Your task to perform on an android device: Show me popular videos on Youtube Image 0: 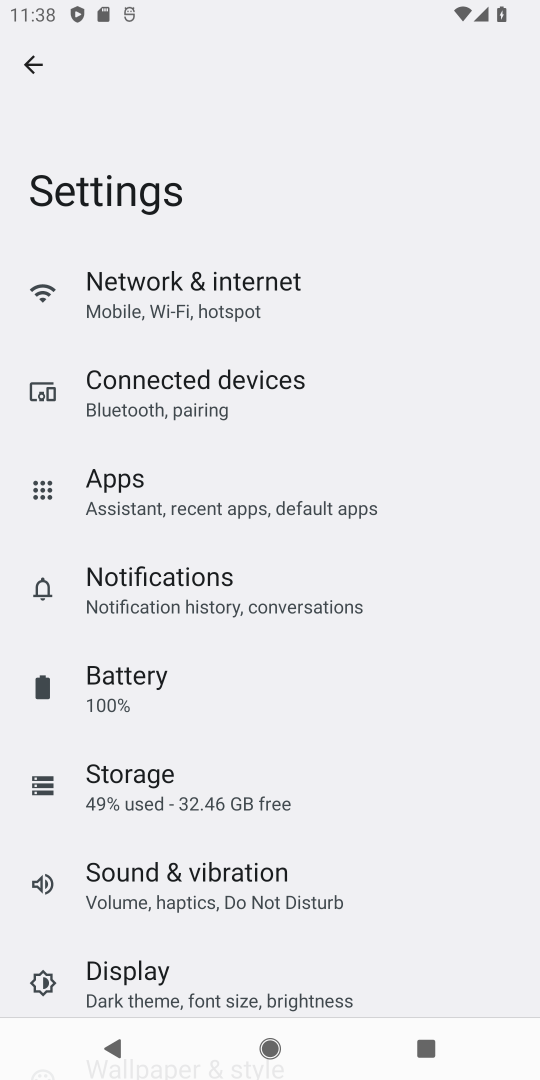
Step 0: press home button
Your task to perform on an android device: Show me popular videos on Youtube Image 1: 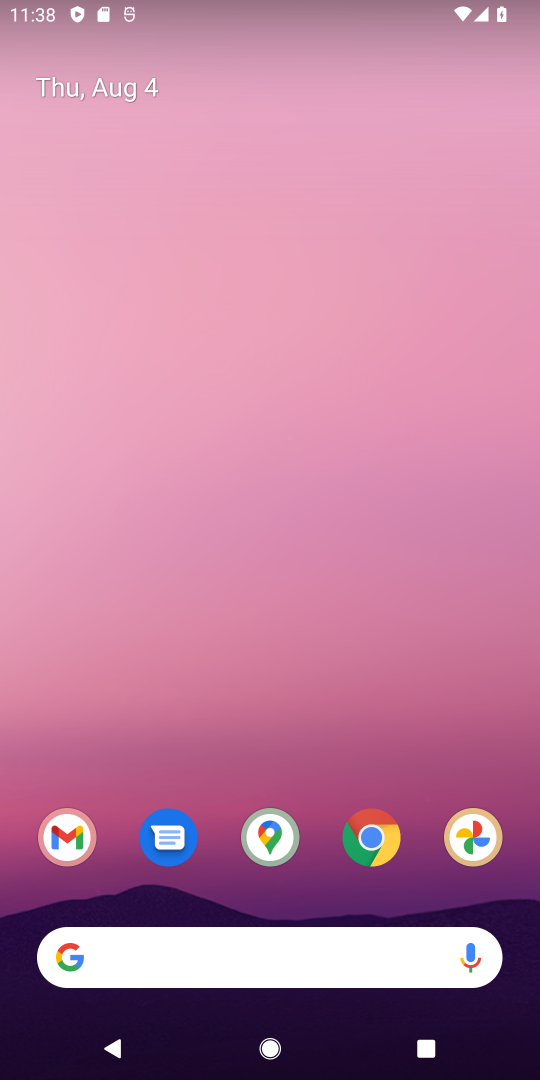
Step 1: drag from (267, 896) to (263, 263)
Your task to perform on an android device: Show me popular videos on Youtube Image 2: 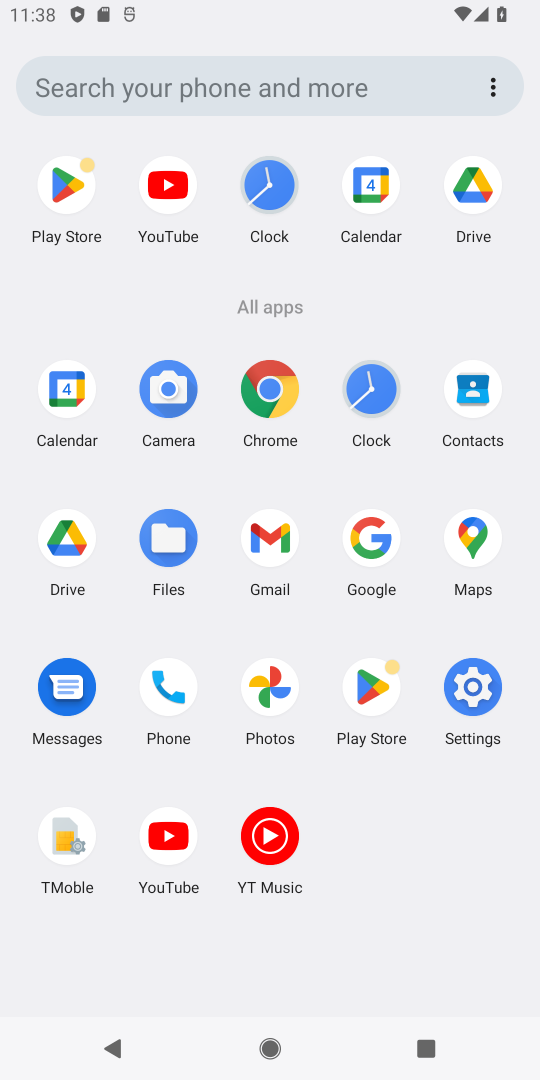
Step 2: click (162, 182)
Your task to perform on an android device: Show me popular videos on Youtube Image 3: 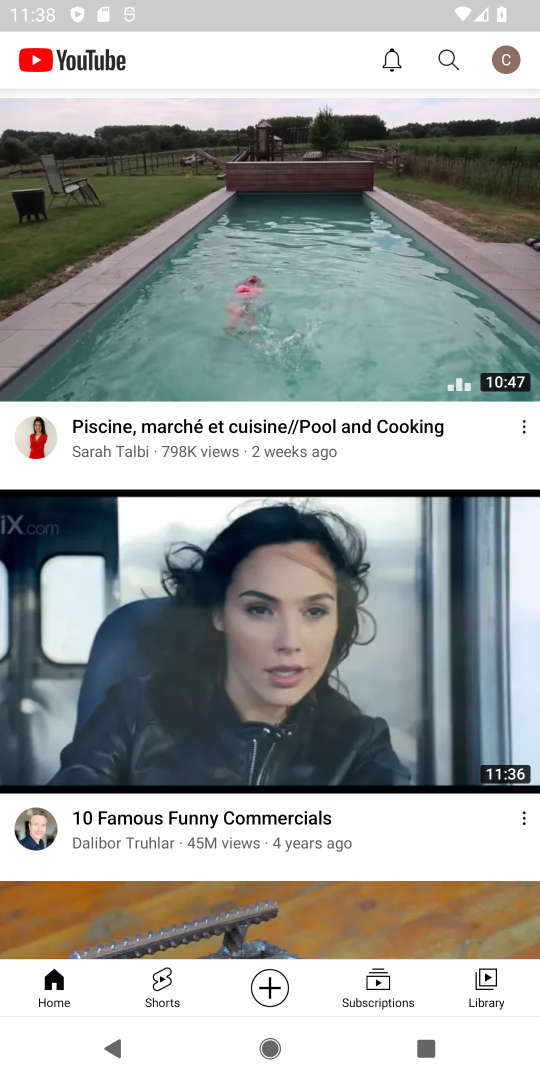
Step 3: drag from (229, 641) to (269, 829)
Your task to perform on an android device: Show me popular videos on Youtube Image 4: 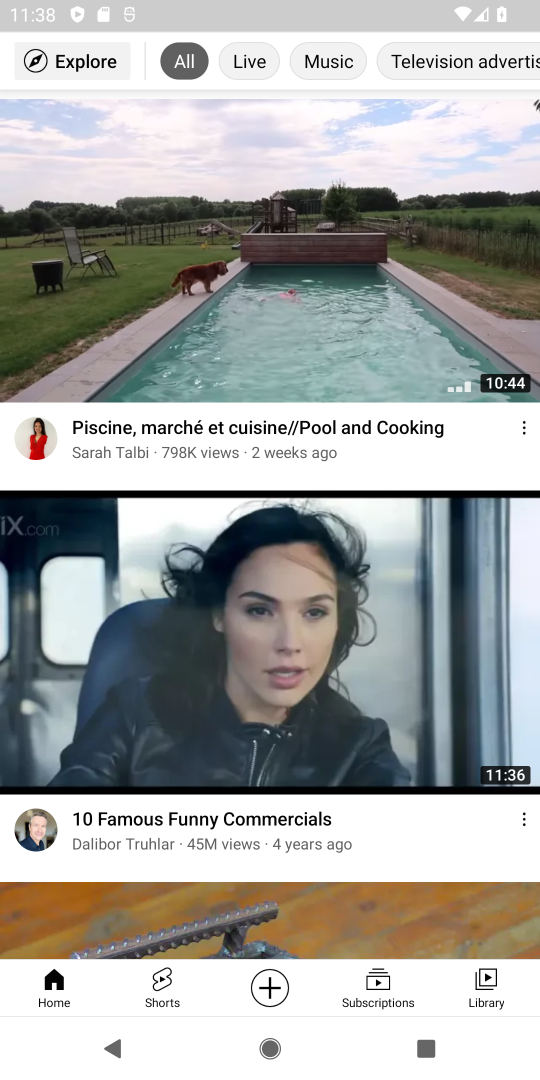
Step 4: click (72, 68)
Your task to perform on an android device: Show me popular videos on Youtube Image 5: 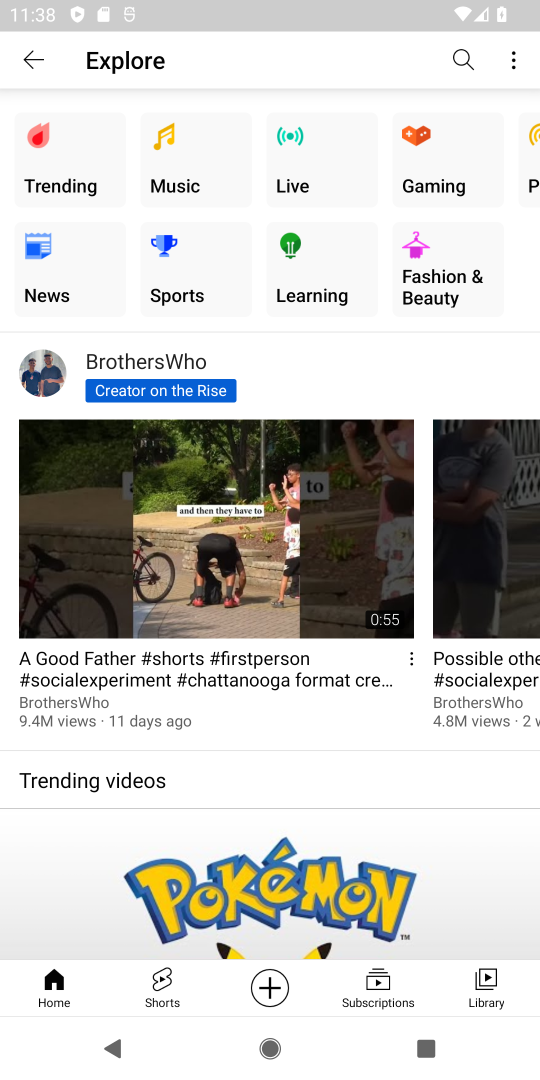
Step 5: click (70, 150)
Your task to perform on an android device: Show me popular videos on Youtube Image 6: 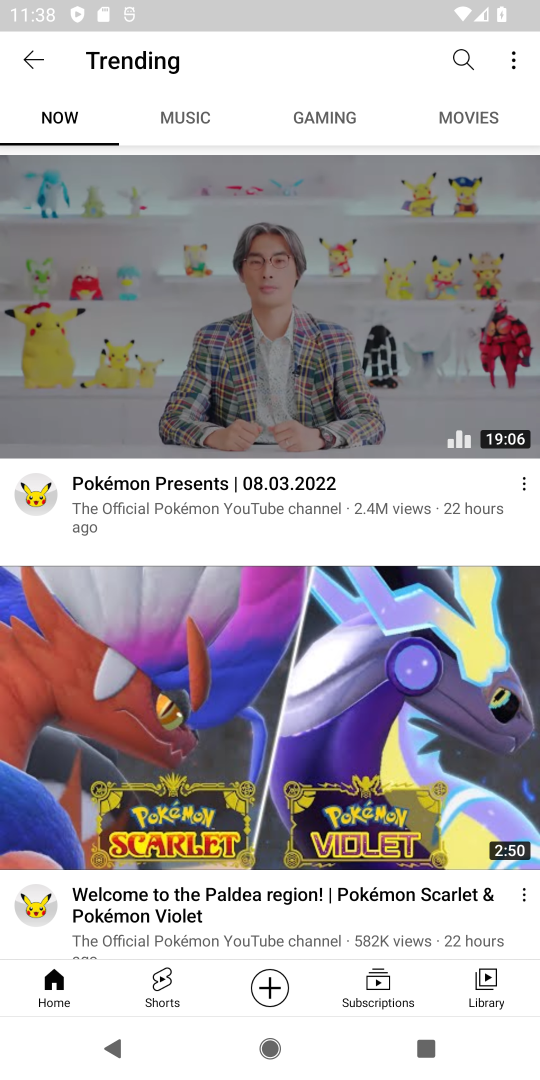
Step 6: task complete